Your task to perform on an android device: Add "panasonic triple a" to the cart on walmart.com Image 0: 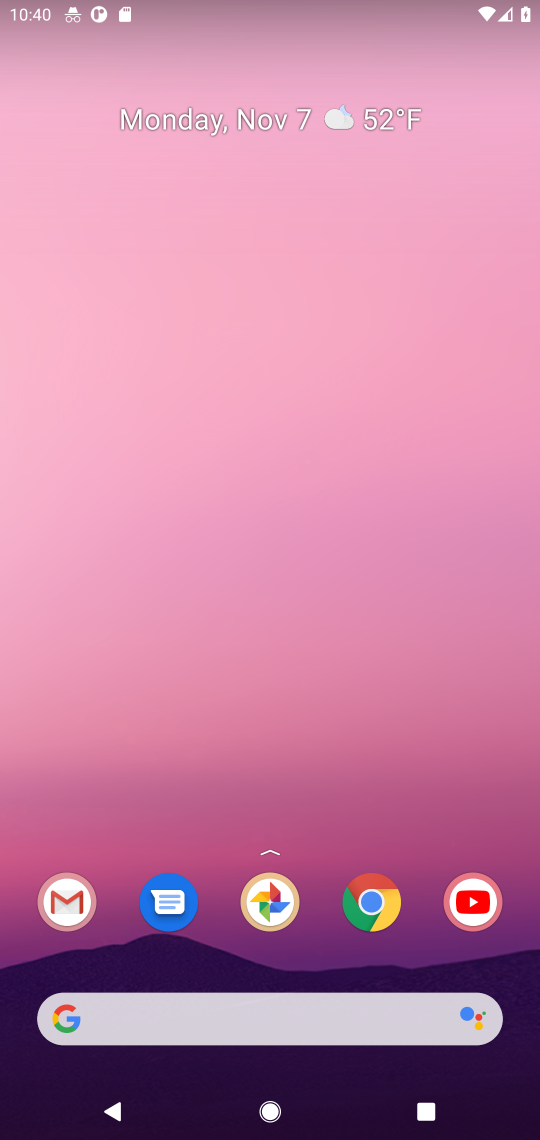
Step 0: click (375, 891)
Your task to perform on an android device: Add "panasonic triple a" to the cart on walmart.com Image 1: 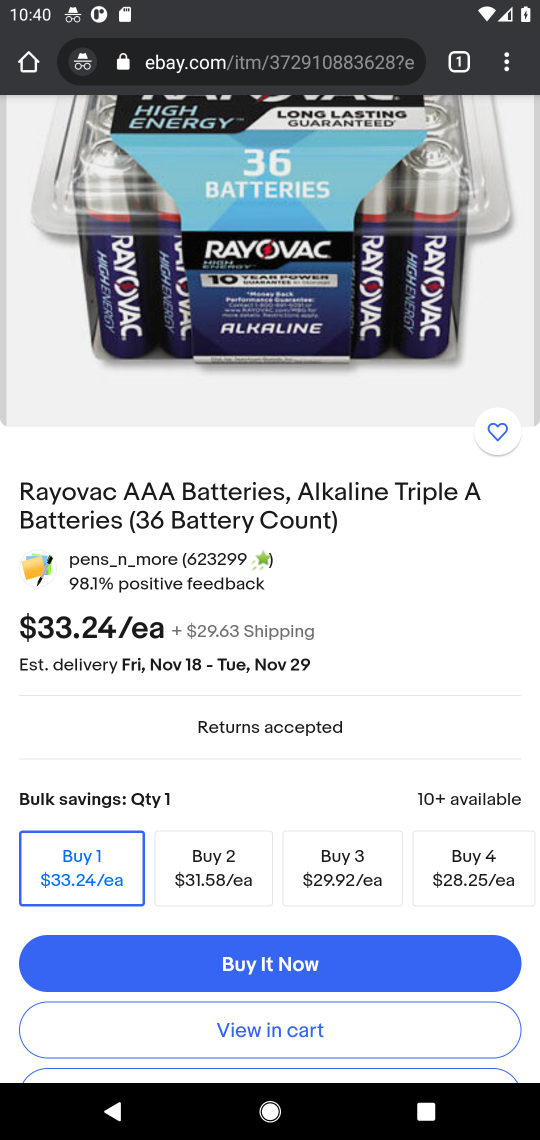
Step 1: click (199, 65)
Your task to perform on an android device: Add "panasonic triple a" to the cart on walmart.com Image 2: 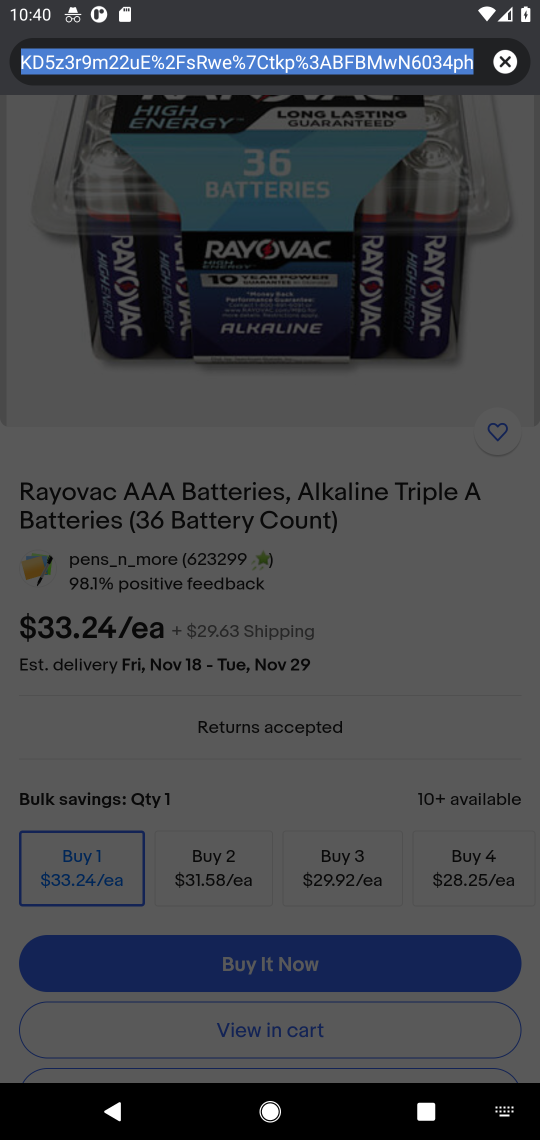
Step 2: type "walmart.com"
Your task to perform on an android device: Add "panasonic triple a" to the cart on walmart.com Image 3: 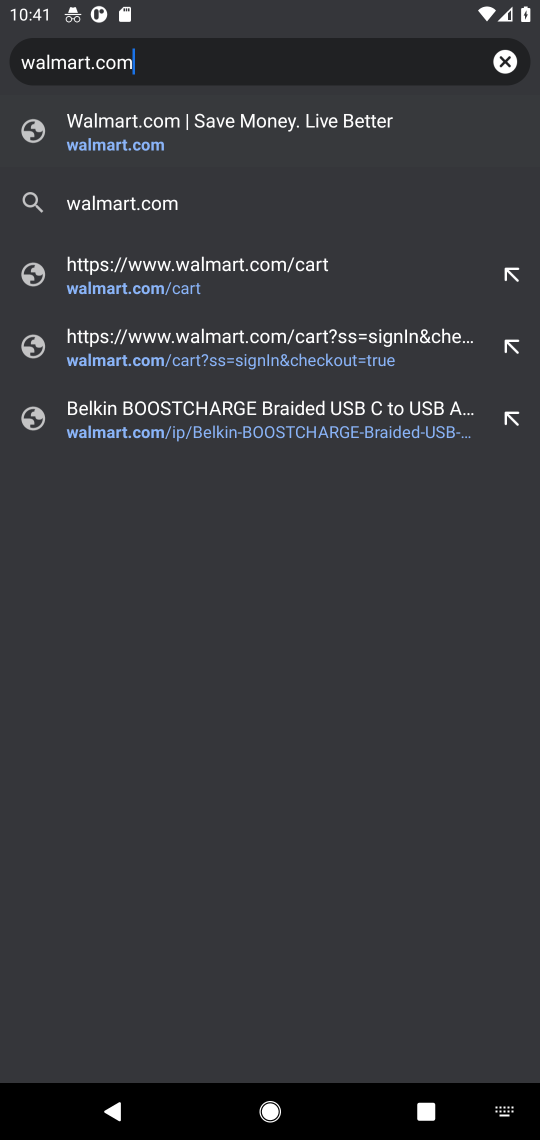
Step 3: click (122, 136)
Your task to perform on an android device: Add "panasonic triple a" to the cart on walmart.com Image 4: 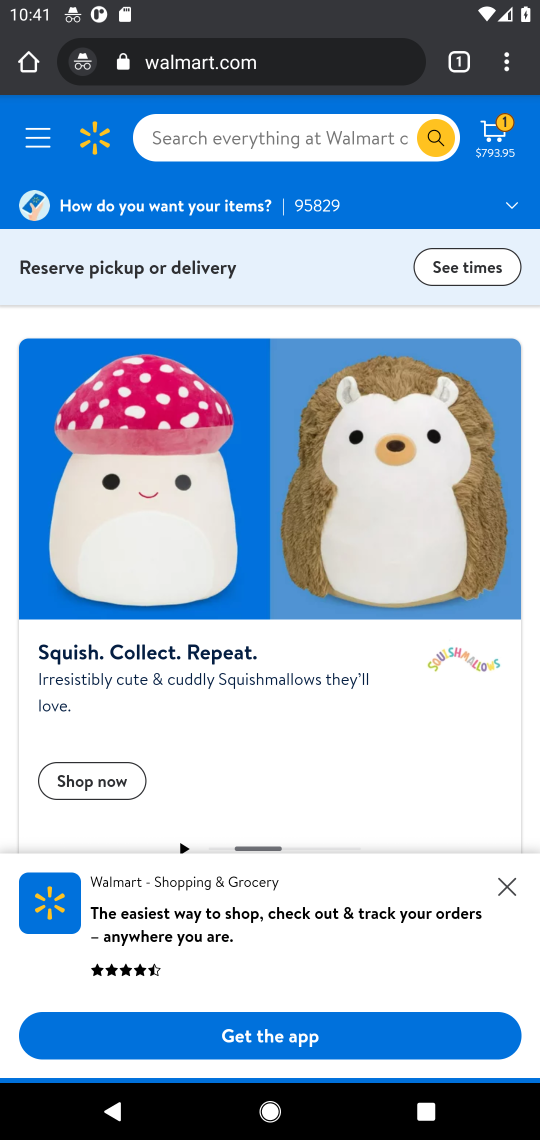
Step 4: click (186, 143)
Your task to perform on an android device: Add "panasonic triple a" to the cart on walmart.com Image 5: 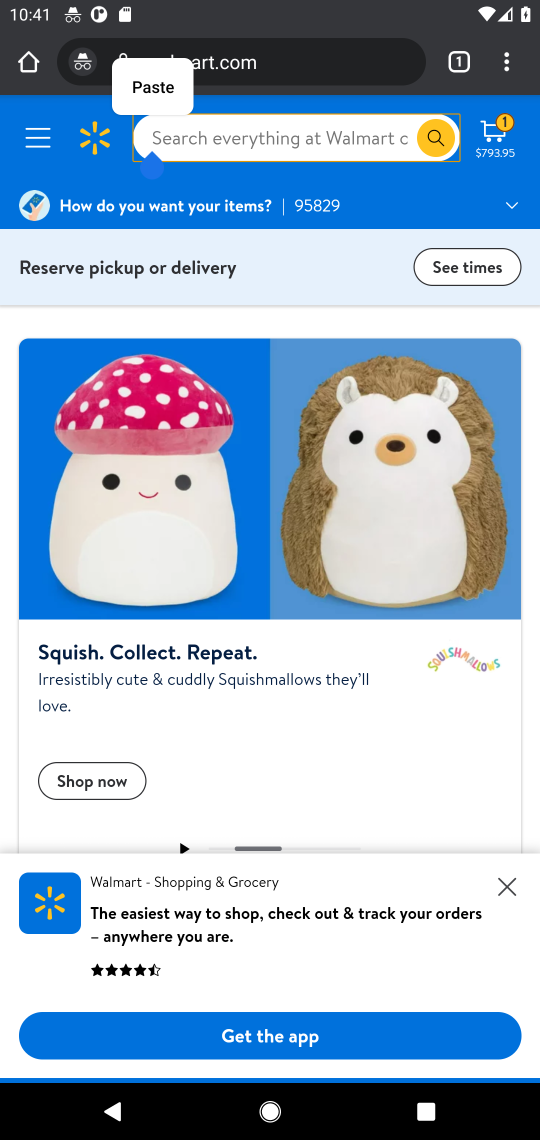
Step 5: type "panasonic triple a"
Your task to perform on an android device: Add "panasonic triple a" to the cart on walmart.com Image 6: 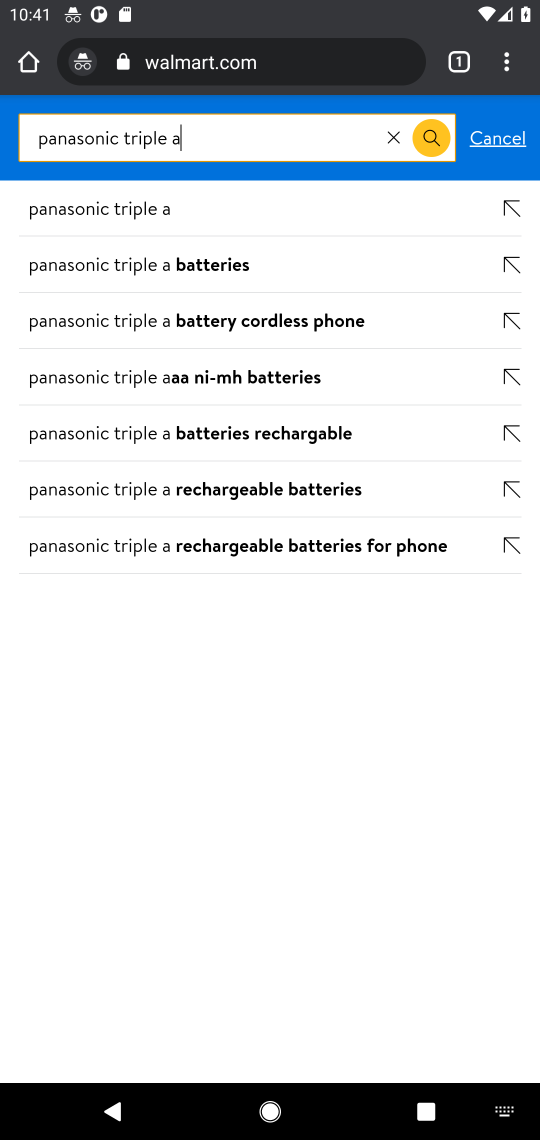
Step 6: click (53, 217)
Your task to perform on an android device: Add "panasonic triple a" to the cart on walmart.com Image 7: 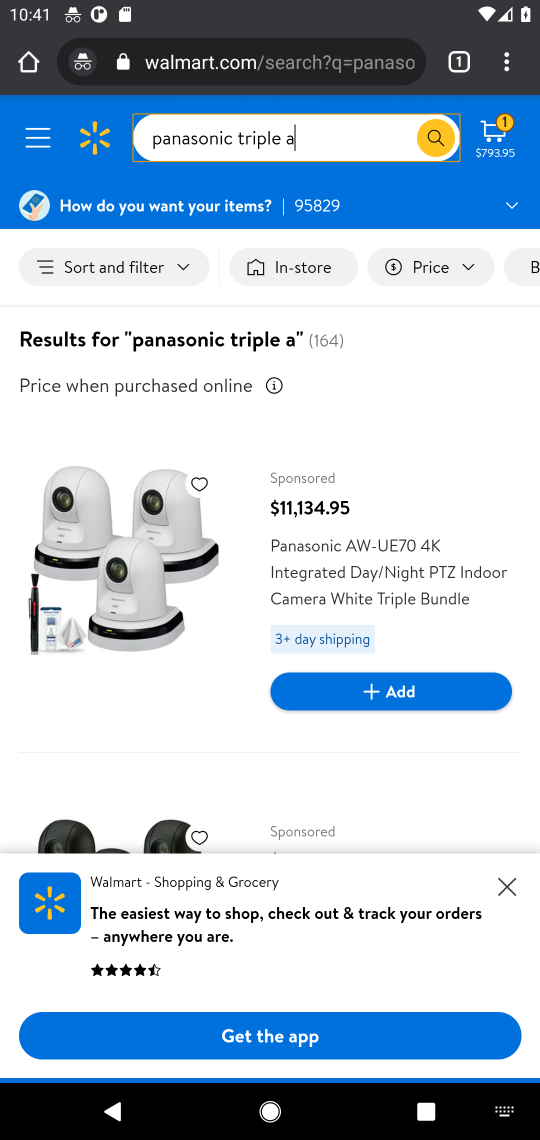
Step 7: drag from (108, 682) to (149, 460)
Your task to perform on an android device: Add "panasonic triple a" to the cart on walmart.com Image 8: 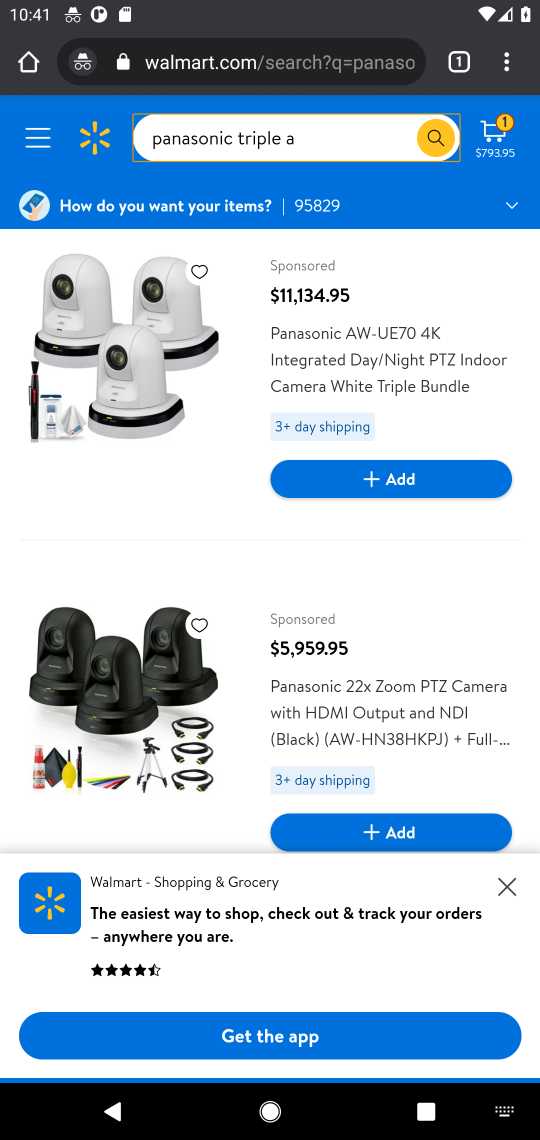
Step 8: drag from (200, 769) to (221, 528)
Your task to perform on an android device: Add "panasonic triple a" to the cart on walmart.com Image 9: 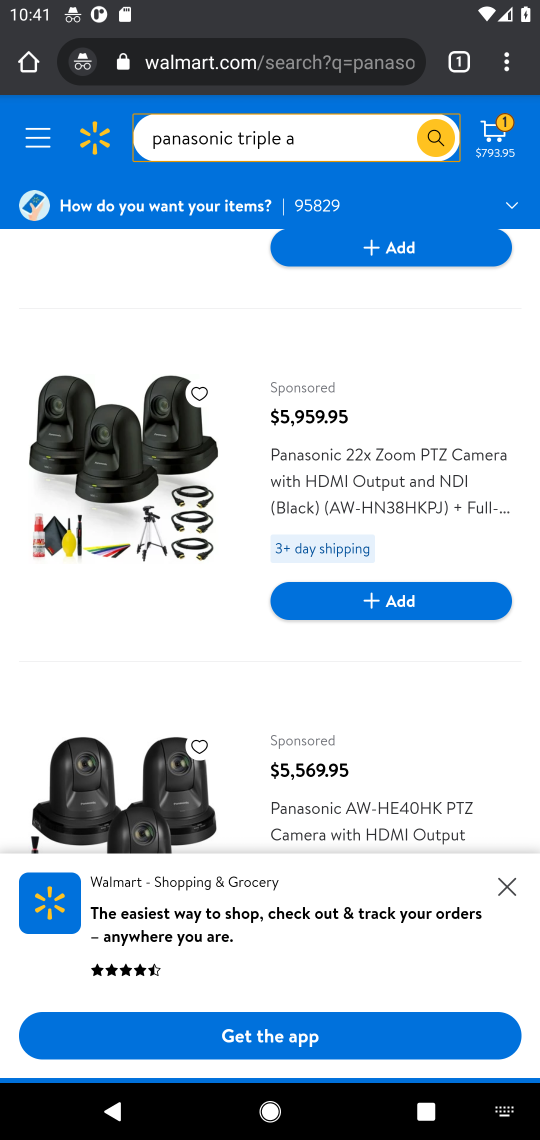
Step 9: drag from (245, 769) to (245, 455)
Your task to perform on an android device: Add "panasonic triple a" to the cart on walmart.com Image 10: 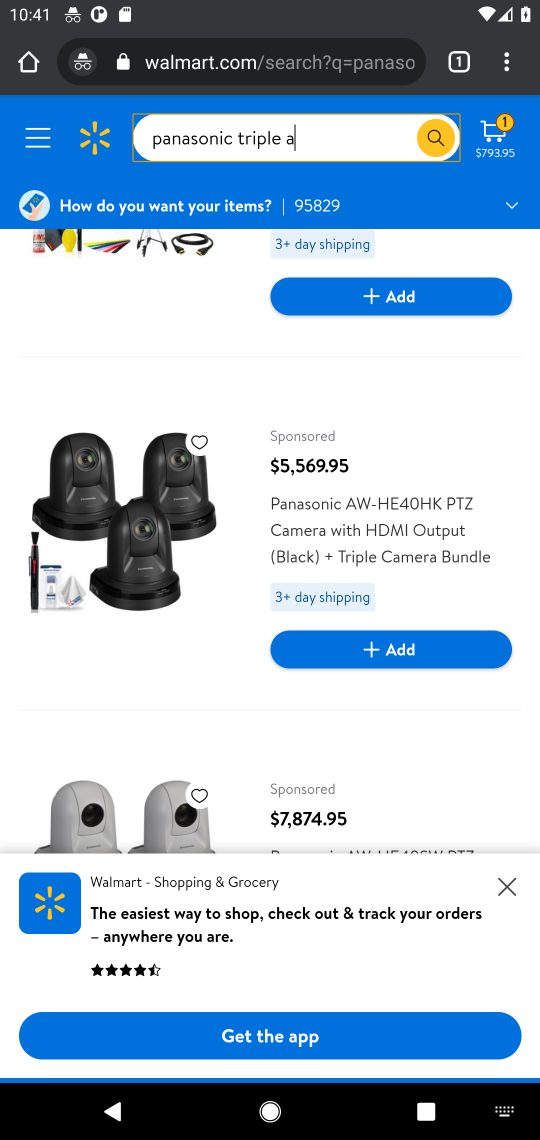
Step 10: drag from (168, 752) to (173, 463)
Your task to perform on an android device: Add "panasonic triple a" to the cart on walmart.com Image 11: 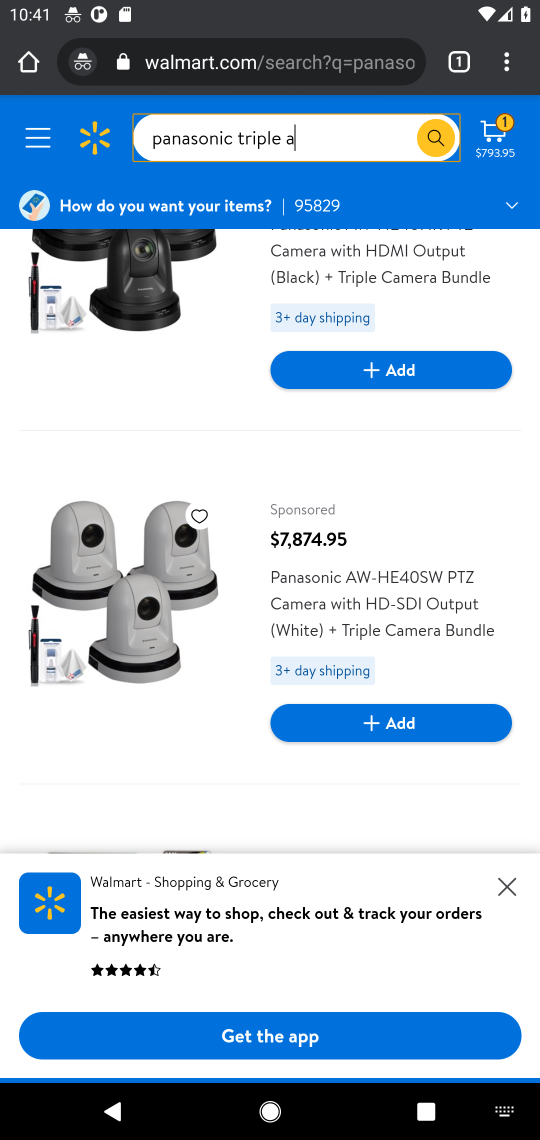
Step 11: drag from (151, 734) to (154, 424)
Your task to perform on an android device: Add "panasonic triple a" to the cart on walmart.com Image 12: 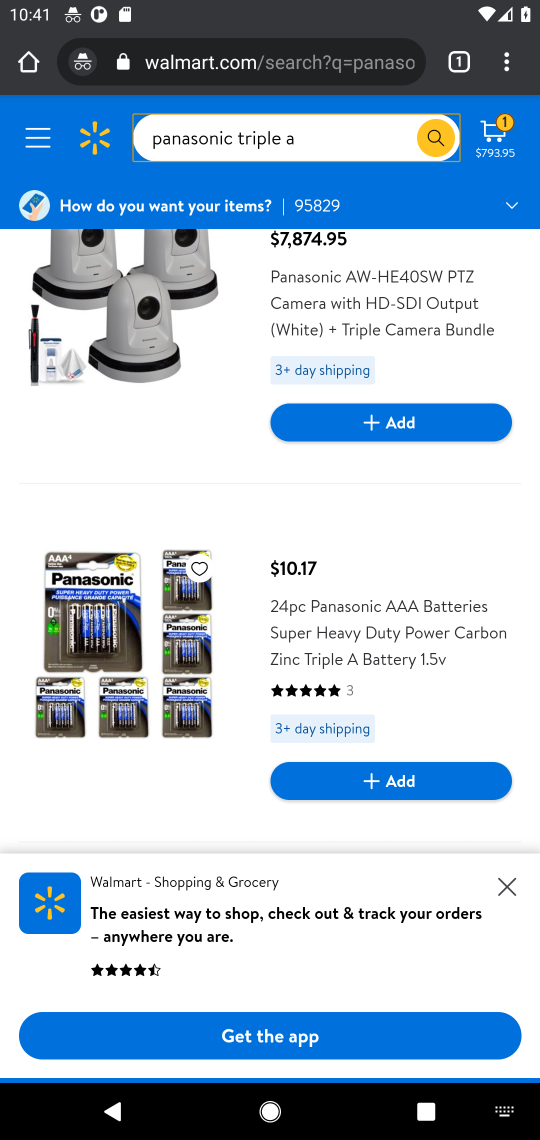
Step 12: click (358, 771)
Your task to perform on an android device: Add "panasonic triple a" to the cart on walmart.com Image 13: 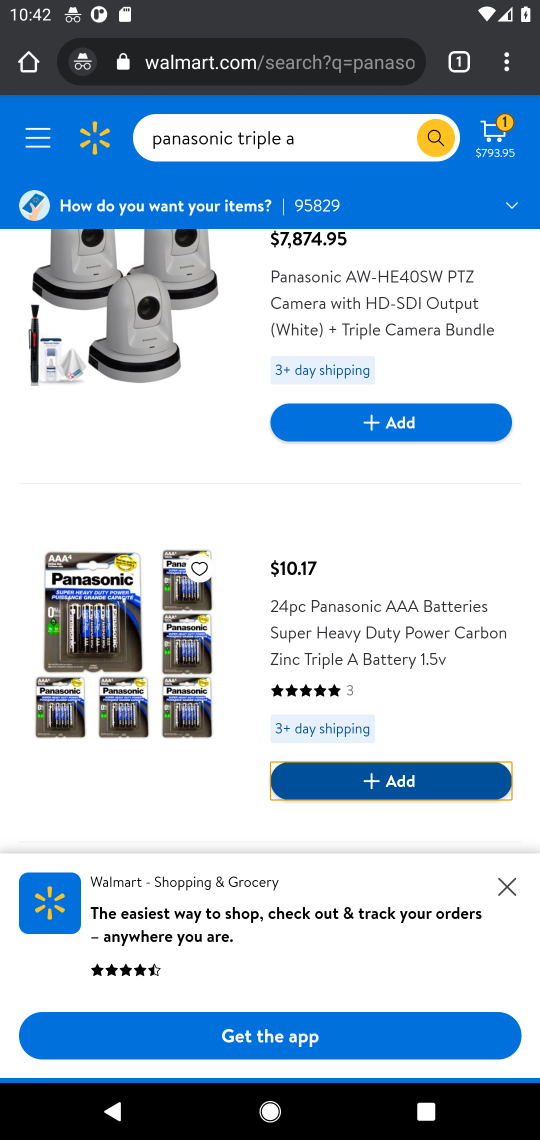
Step 13: click (368, 784)
Your task to perform on an android device: Add "panasonic triple a" to the cart on walmart.com Image 14: 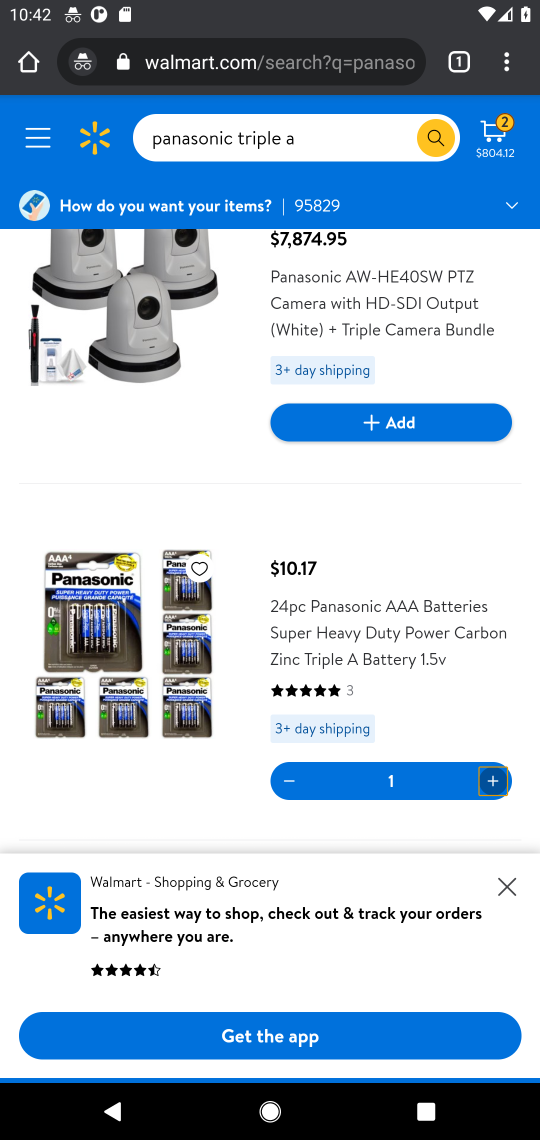
Step 14: task complete